Your task to perform on an android device: turn on priority inbox in the gmail app Image 0: 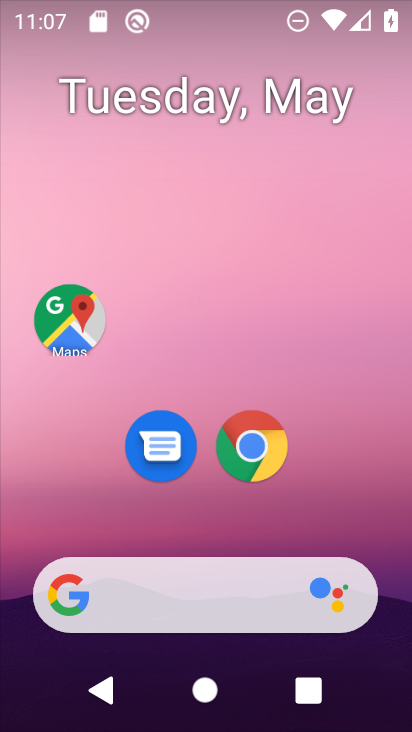
Step 0: drag from (216, 541) to (282, 36)
Your task to perform on an android device: turn on priority inbox in the gmail app Image 1: 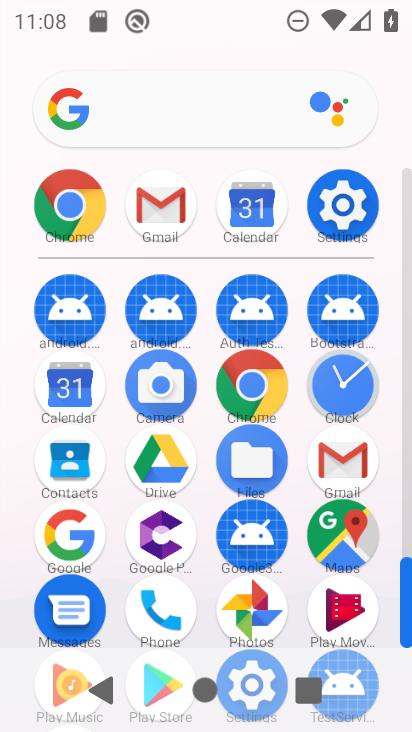
Step 1: click (343, 447)
Your task to perform on an android device: turn on priority inbox in the gmail app Image 2: 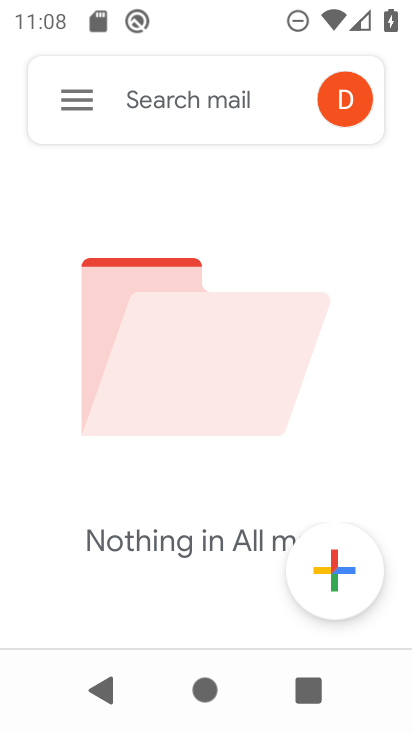
Step 2: click (59, 108)
Your task to perform on an android device: turn on priority inbox in the gmail app Image 3: 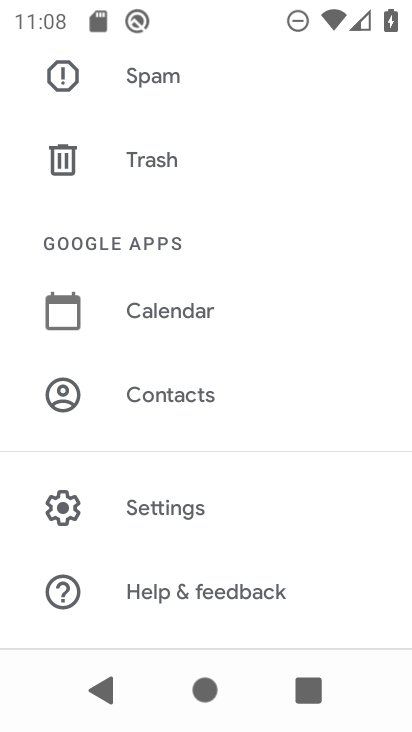
Step 3: click (174, 527)
Your task to perform on an android device: turn on priority inbox in the gmail app Image 4: 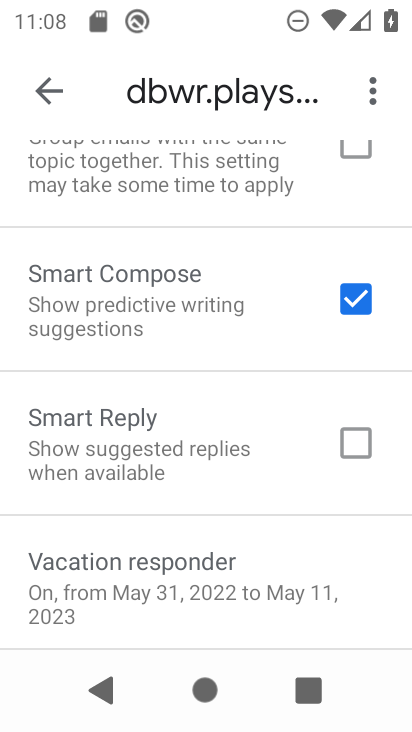
Step 4: drag from (193, 259) to (188, 573)
Your task to perform on an android device: turn on priority inbox in the gmail app Image 5: 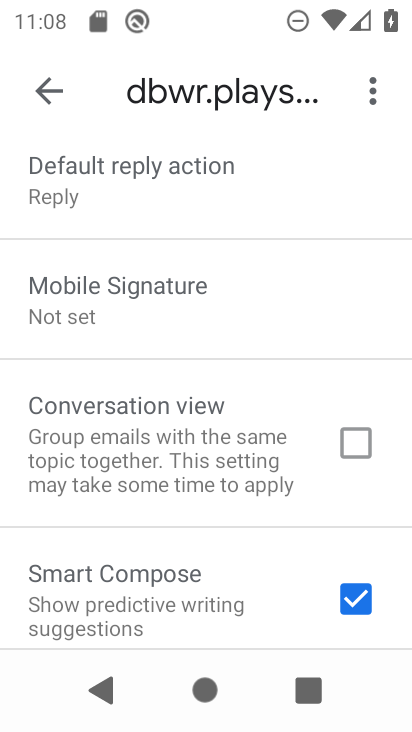
Step 5: drag from (216, 274) to (185, 579)
Your task to perform on an android device: turn on priority inbox in the gmail app Image 6: 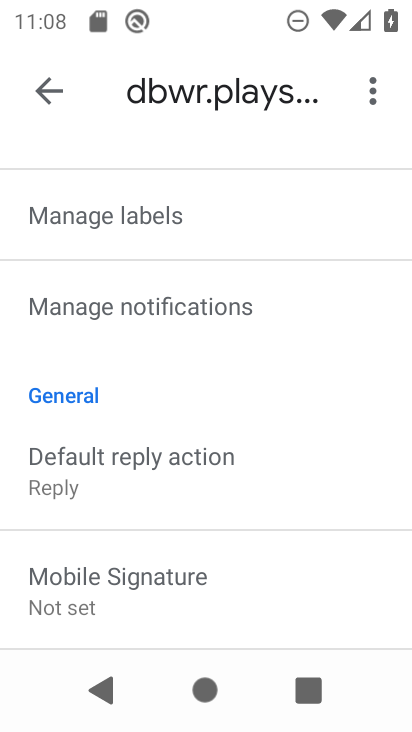
Step 6: drag from (188, 205) to (189, 614)
Your task to perform on an android device: turn on priority inbox in the gmail app Image 7: 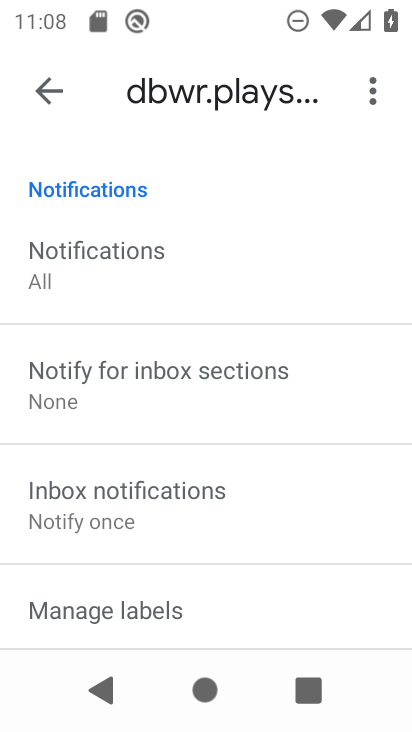
Step 7: drag from (174, 224) to (155, 603)
Your task to perform on an android device: turn on priority inbox in the gmail app Image 8: 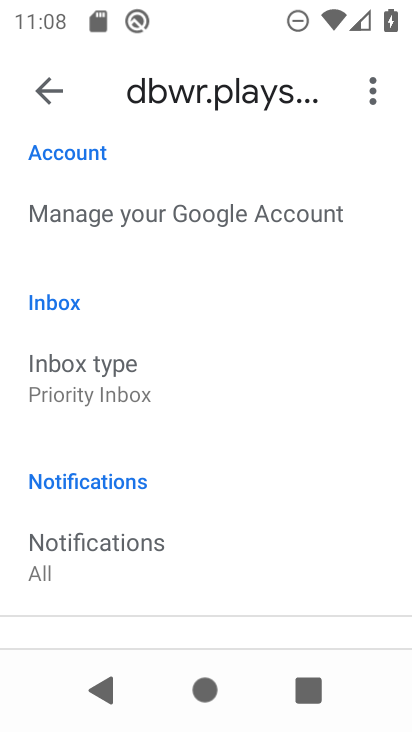
Step 8: click (146, 381)
Your task to perform on an android device: turn on priority inbox in the gmail app Image 9: 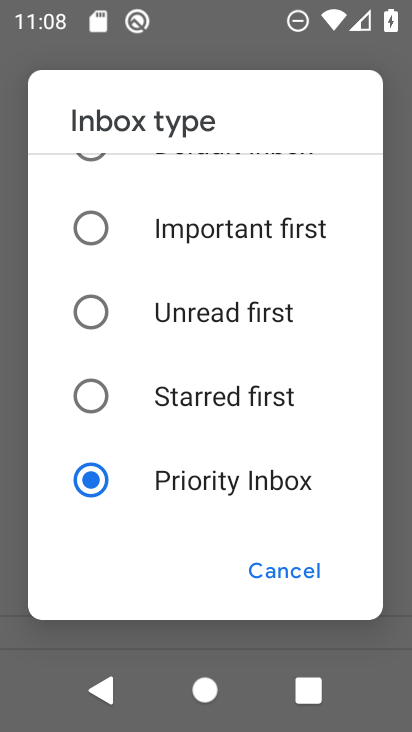
Step 9: task complete